Your task to perform on an android device: show emergency info Image 0: 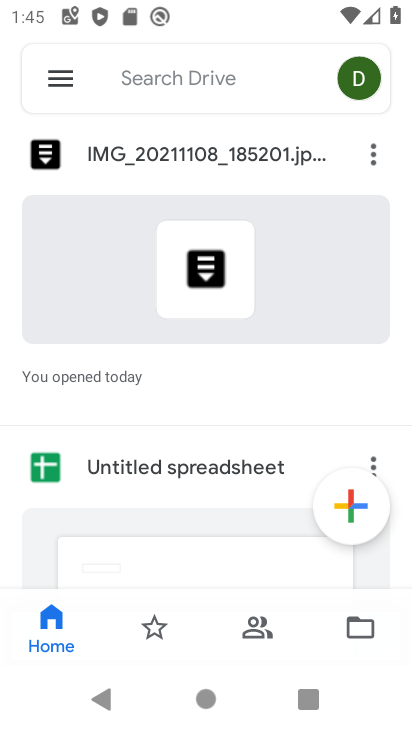
Step 0: press home button
Your task to perform on an android device: show emergency info Image 1: 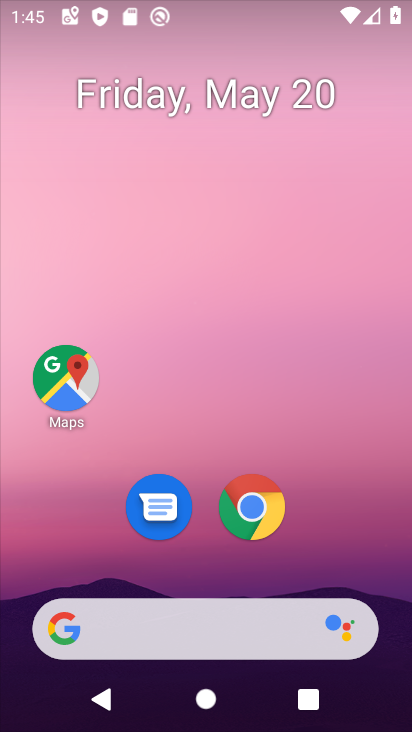
Step 1: drag from (199, 726) to (207, 172)
Your task to perform on an android device: show emergency info Image 2: 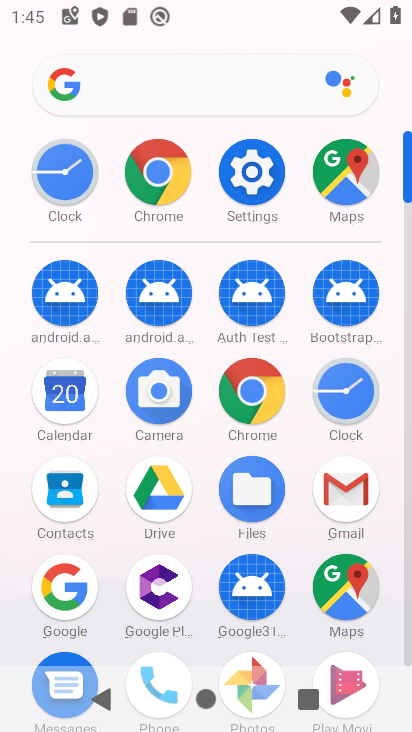
Step 2: click (249, 164)
Your task to perform on an android device: show emergency info Image 3: 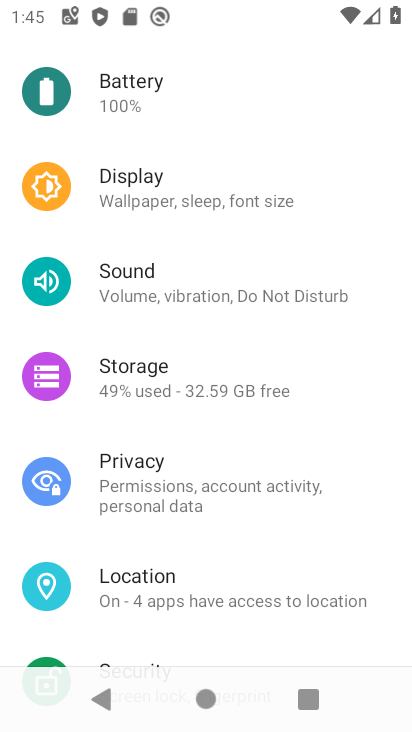
Step 3: drag from (179, 607) to (210, 137)
Your task to perform on an android device: show emergency info Image 4: 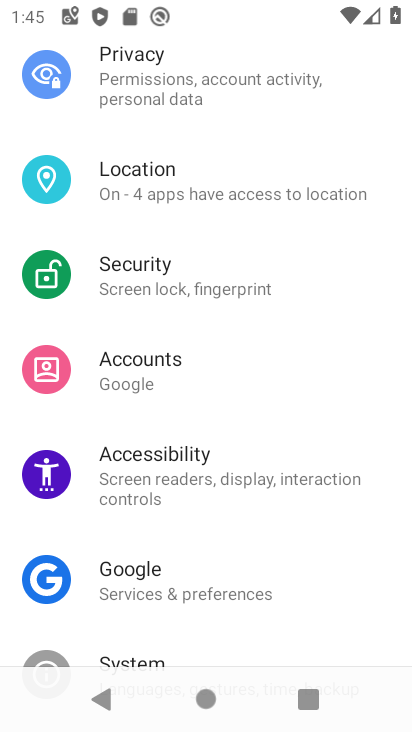
Step 4: drag from (185, 620) to (204, 246)
Your task to perform on an android device: show emergency info Image 5: 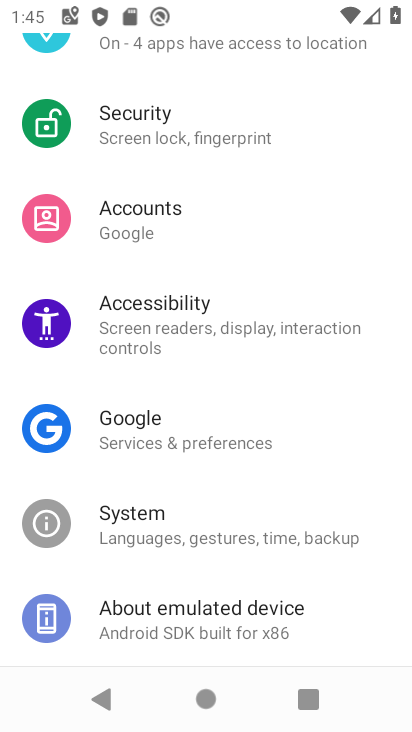
Step 5: click (178, 620)
Your task to perform on an android device: show emergency info Image 6: 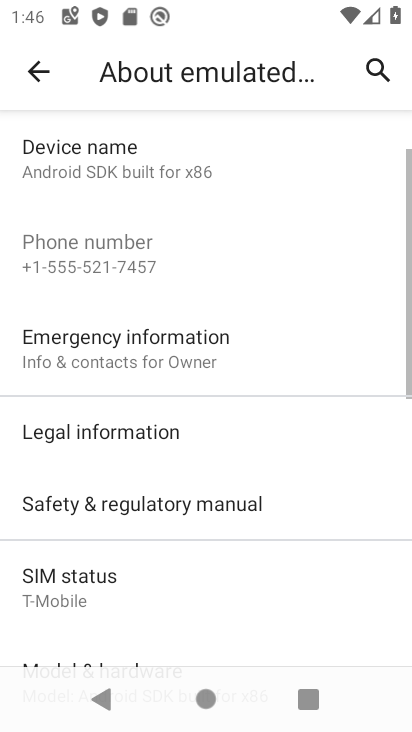
Step 6: click (115, 334)
Your task to perform on an android device: show emergency info Image 7: 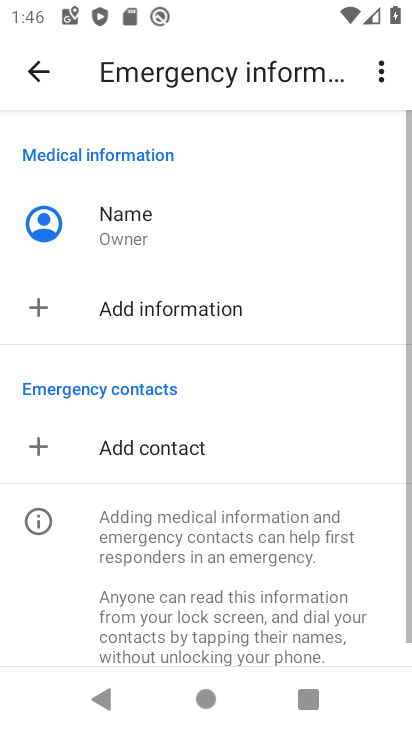
Step 7: task complete